Your task to perform on an android device: Go to Google Image 0: 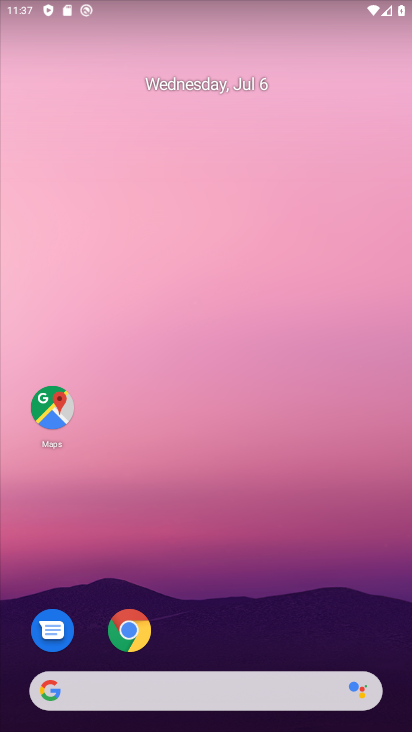
Step 0: drag from (192, 642) to (227, 233)
Your task to perform on an android device: Go to Google Image 1: 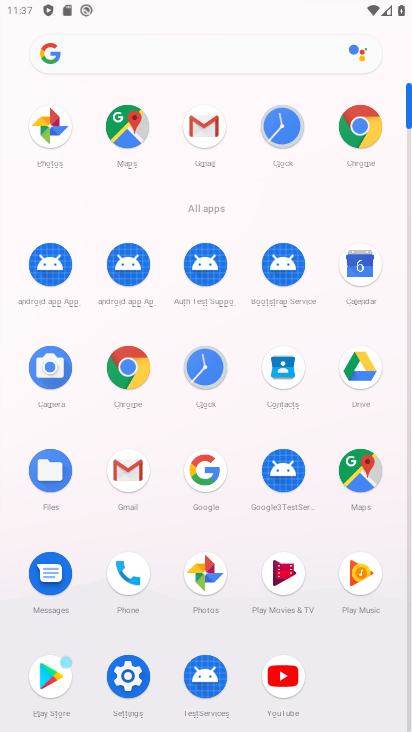
Step 1: click (209, 474)
Your task to perform on an android device: Go to Google Image 2: 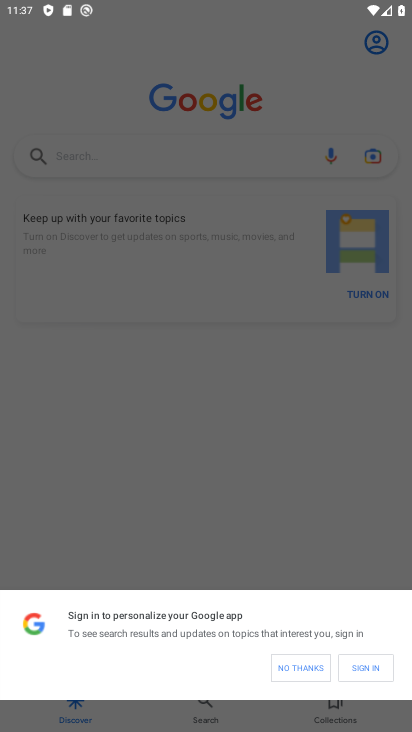
Step 2: click (303, 666)
Your task to perform on an android device: Go to Google Image 3: 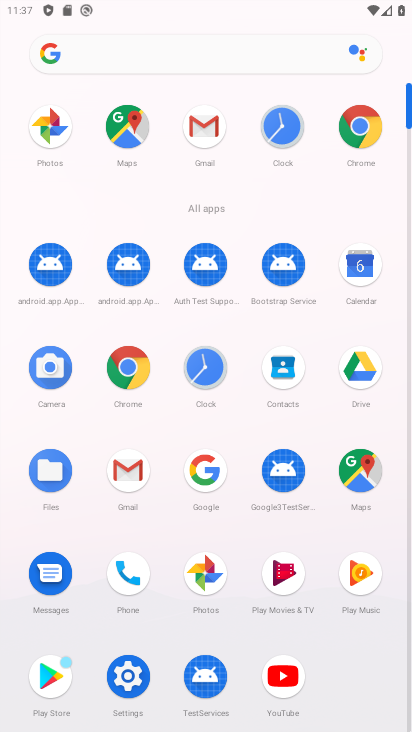
Step 3: click (202, 479)
Your task to perform on an android device: Go to Google Image 4: 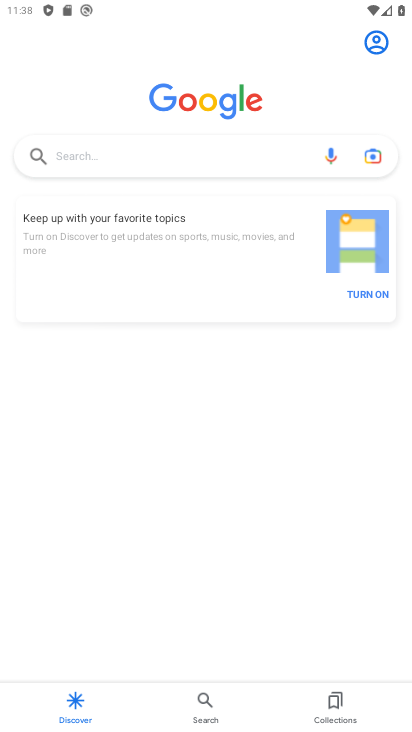
Step 4: task complete